Your task to perform on an android device: Turn on the flashlight Image 0: 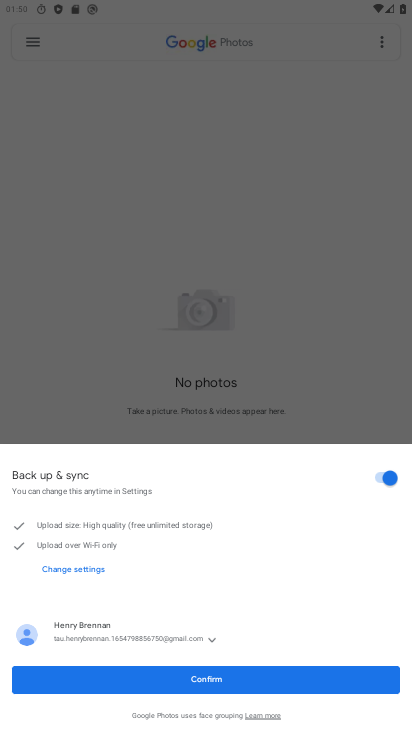
Step 0: drag from (311, 0) to (405, 280)
Your task to perform on an android device: Turn on the flashlight Image 1: 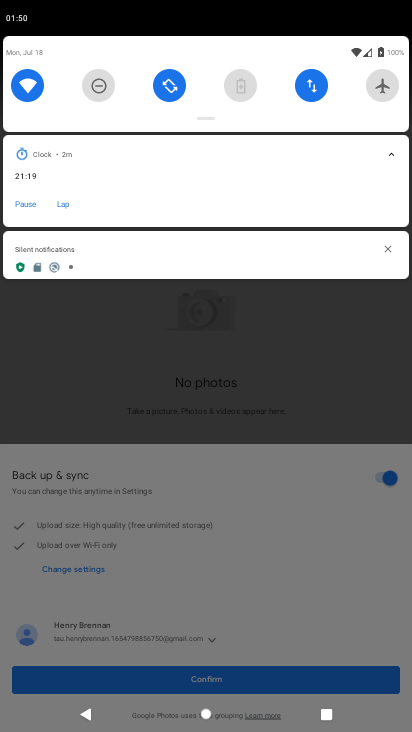
Step 1: task complete